Your task to perform on an android device: turn off sleep mode Image 0: 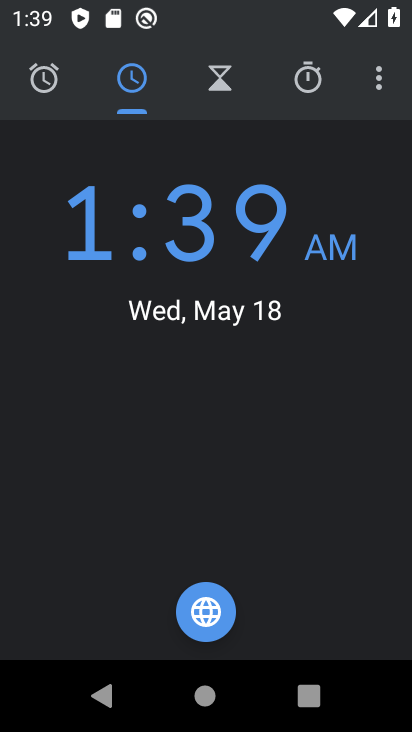
Step 0: press home button
Your task to perform on an android device: turn off sleep mode Image 1: 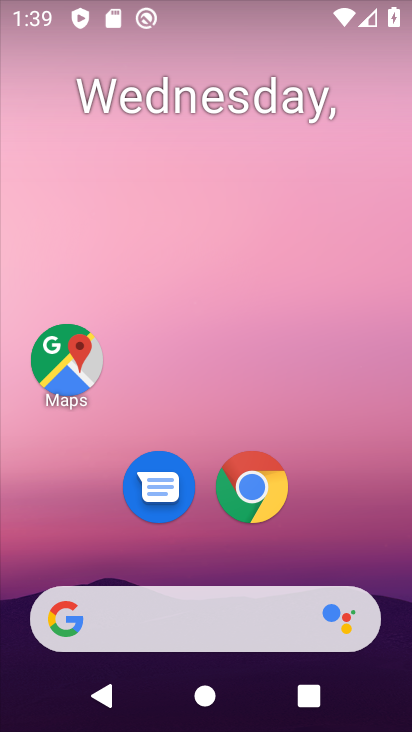
Step 1: drag from (334, 522) to (210, 162)
Your task to perform on an android device: turn off sleep mode Image 2: 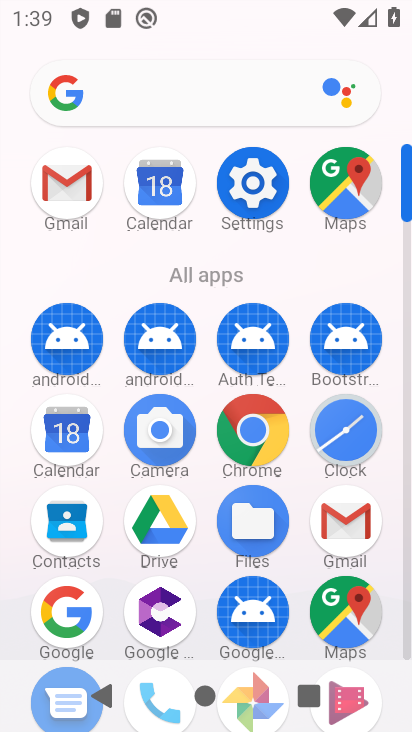
Step 2: click (262, 176)
Your task to perform on an android device: turn off sleep mode Image 3: 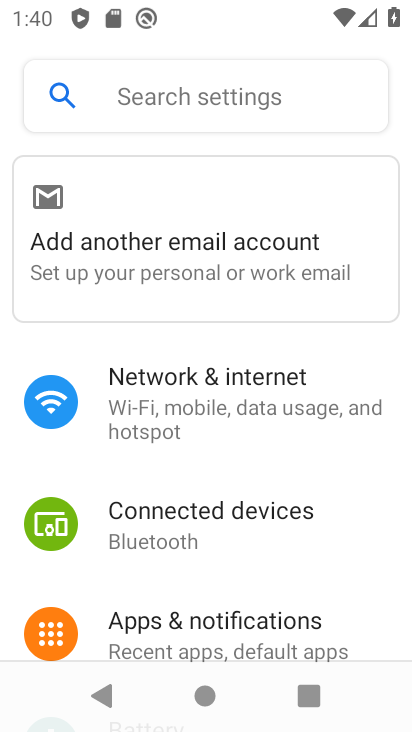
Step 3: drag from (245, 568) to (180, 406)
Your task to perform on an android device: turn off sleep mode Image 4: 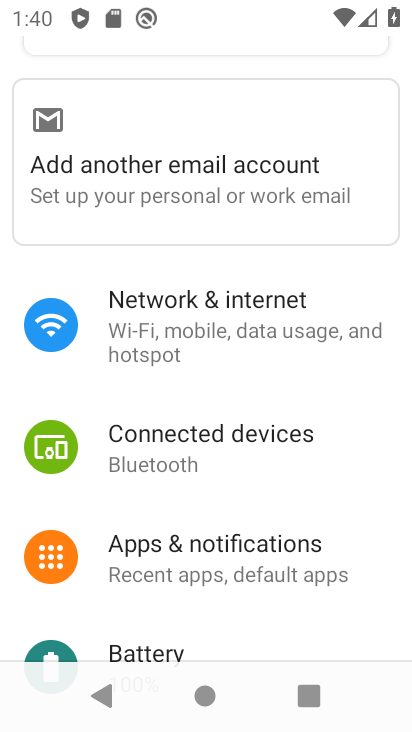
Step 4: drag from (198, 603) to (193, 413)
Your task to perform on an android device: turn off sleep mode Image 5: 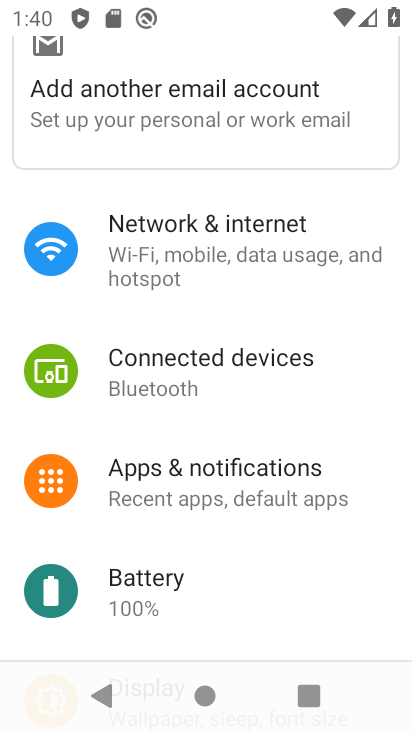
Step 5: drag from (204, 523) to (183, 328)
Your task to perform on an android device: turn off sleep mode Image 6: 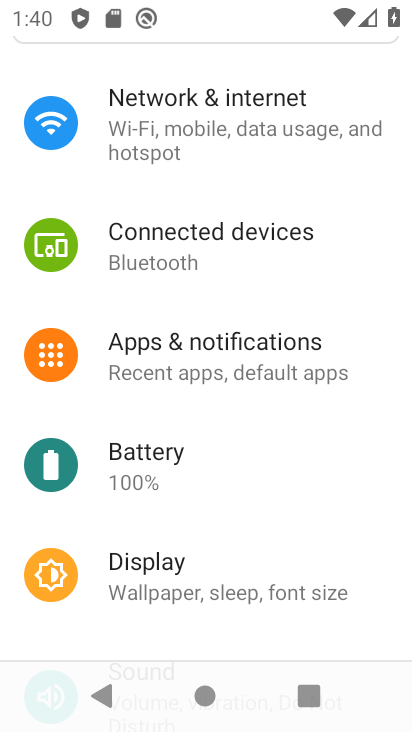
Step 6: click (178, 583)
Your task to perform on an android device: turn off sleep mode Image 7: 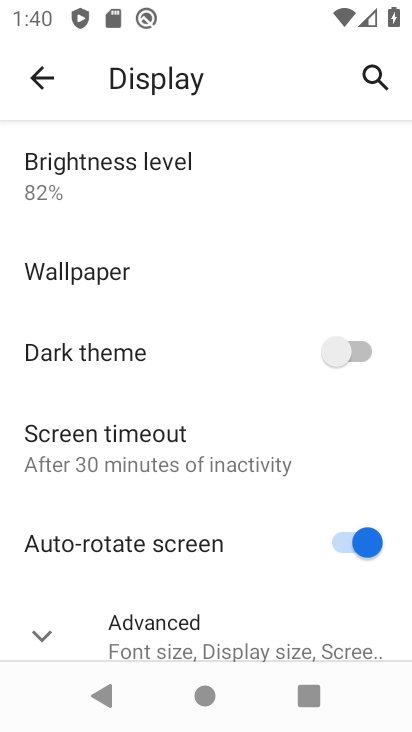
Step 7: click (157, 569)
Your task to perform on an android device: turn off sleep mode Image 8: 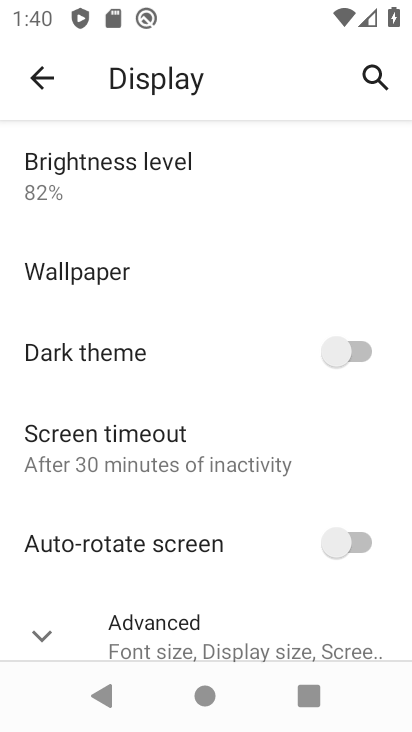
Step 8: task complete